Your task to perform on an android device: set the timer Image 0: 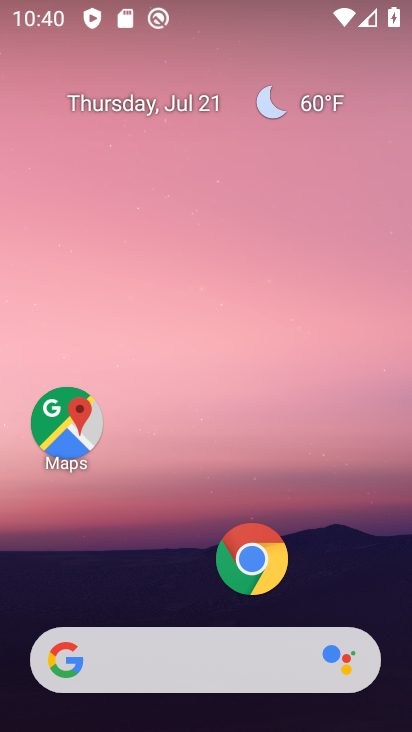
Step 0: drag from (159, 511) to (171, 11)
Your task to perform on an android device: set the timer Image 1: 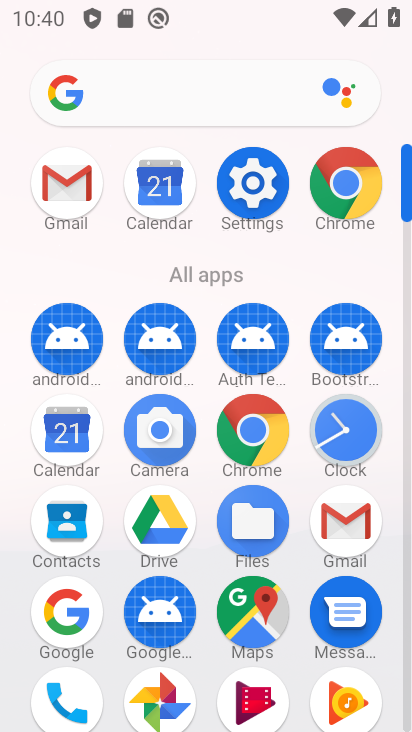
Step 1: click (348, 421)
Your task to perform on an android device: set the timer Image 2: 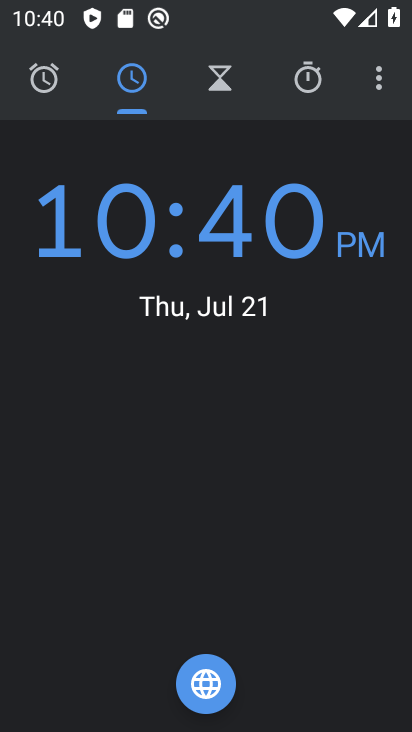
Step 2: click (229, 73)
Your task to perform on an android device: set the timer Image 3: 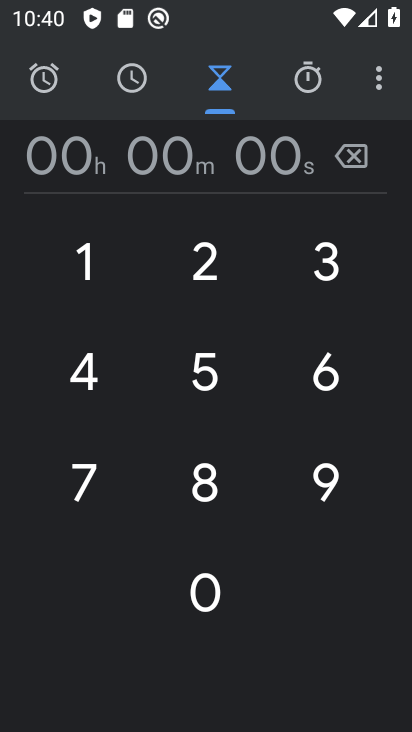
Step 3: click (210, 276)
Your task to perform on an android device: set the timer Image 4: 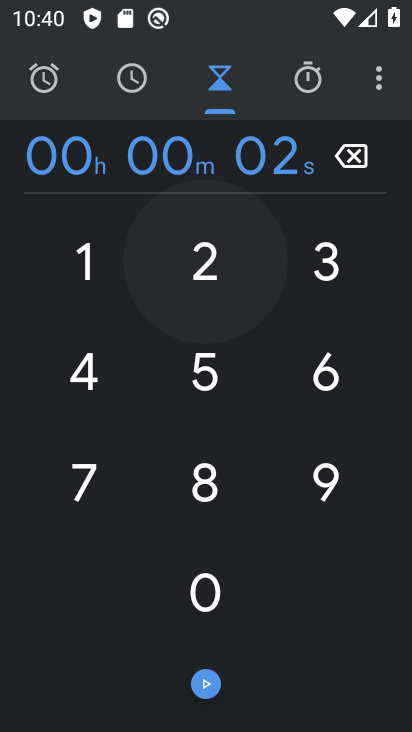
Step 4: click (332, 269)
Your task to perform on an android device: set the timer Image 5: 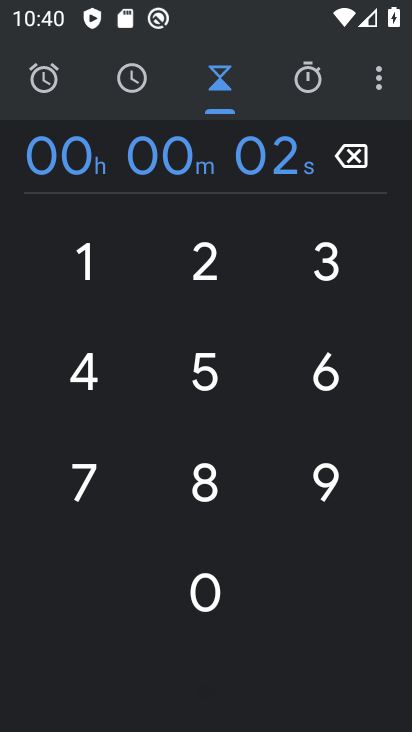
Step 5: click (138, 378)
Your task to perform on an android device: set the timer Image 6: 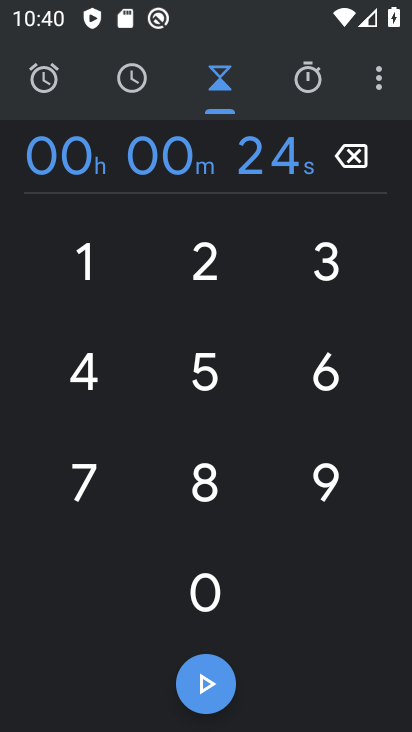
Step 6: click (313, 366)
Your task to perform on an android device: set the timer Image 7: 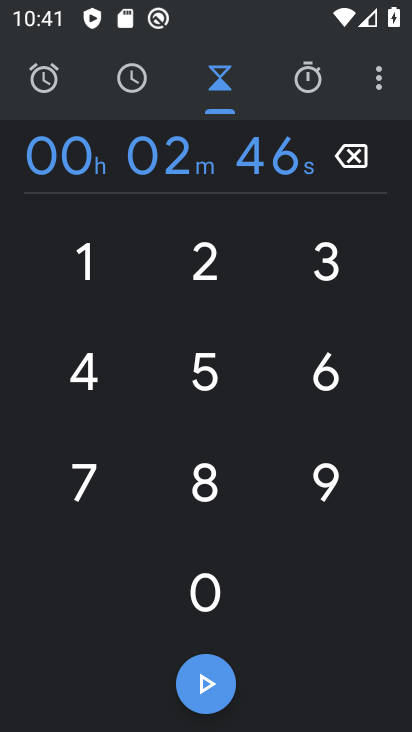
Step 7: click (225, 379)
Your task to perform on an android device: set the timer Image 8: 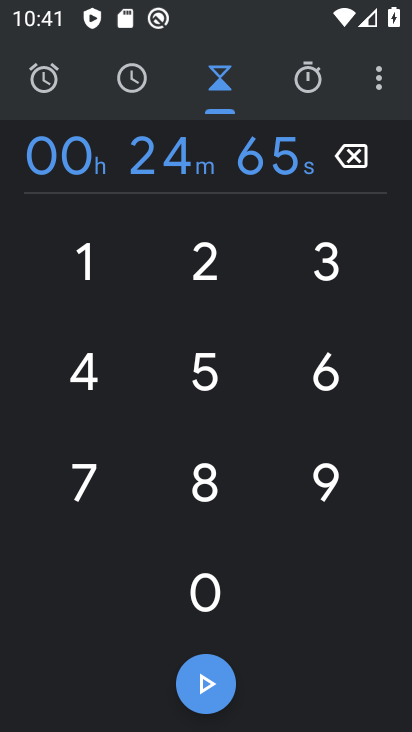
Step 8: click (67, 358)
Your task to perform on an android device: set the timer Image 9: 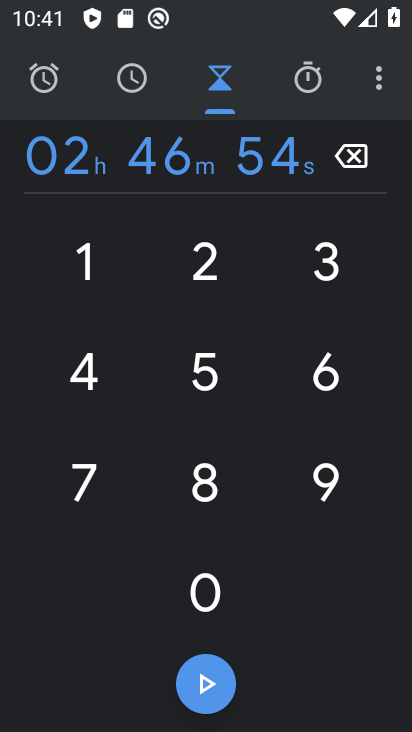
Step 9: task complete